Your task to perform on an android device: Search for hotels in Washington DC Image 0: 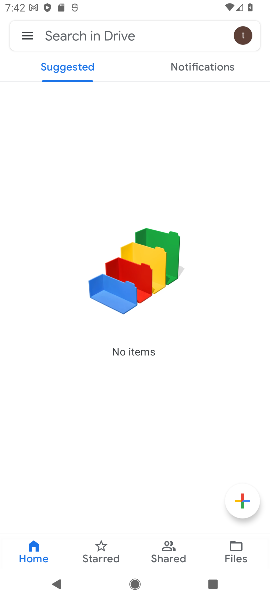
Step 0: press home button
Your task to perform on an android device: Search for hotels in Washington DC Image 1: 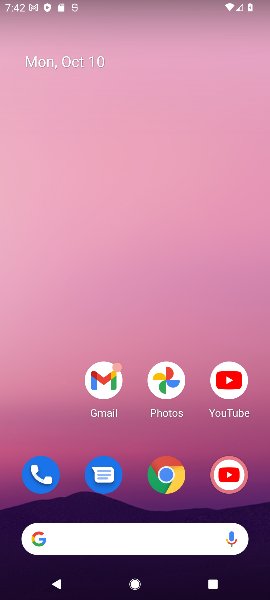
Step 1: drag from (130, 496) to (37, 7)
Your task to perform on an android device: Search for hotels in Washington DC Image 2: 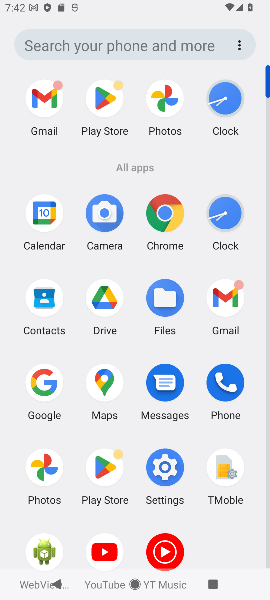
Step 2: click (97, 395)
Your task to perform on an android device: Search for hotels in Washington DC Image 3: 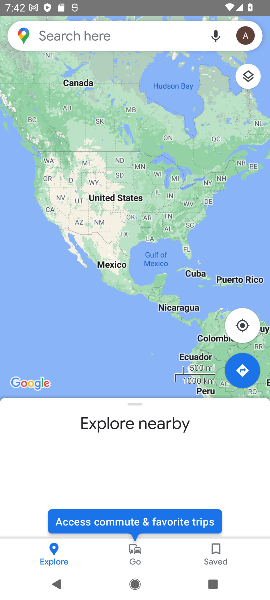
Step 3: click (152, 33)
Your task to perform on an android device: Search for hotels in Washington DC Image 4: 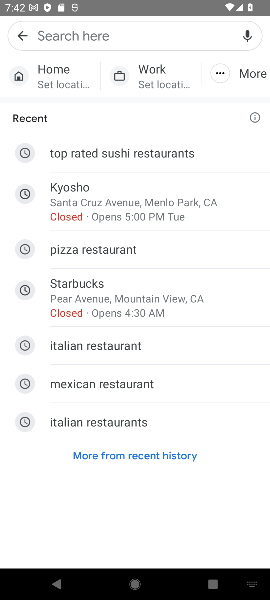
Step 4: type "hotels in washington DC"
Your task to perform on an android device: Search for hotels in Washington DC Image 5: 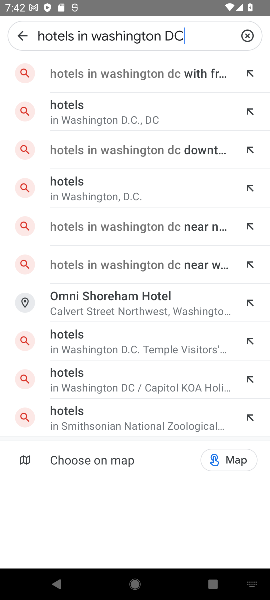
Step 5: click (138, 72)
Your task to perform on an android device: Search for hotels in Washington DC Image 6: 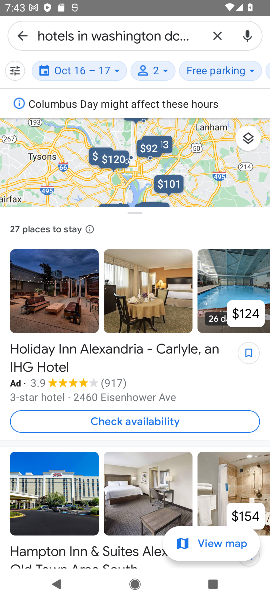
Step 6: task complete